Your task to perform on an android device: Open the calendar and show me this week's events? Image 0: 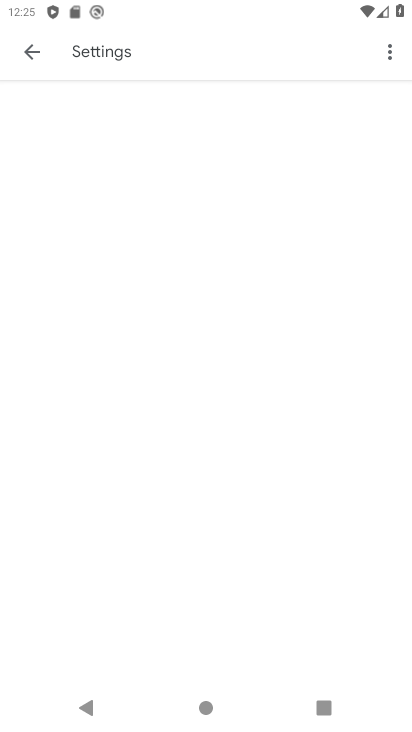
Step 0: press home button
Your task to perform on an android device: Open the calendar and show me this week's events? Image 1: 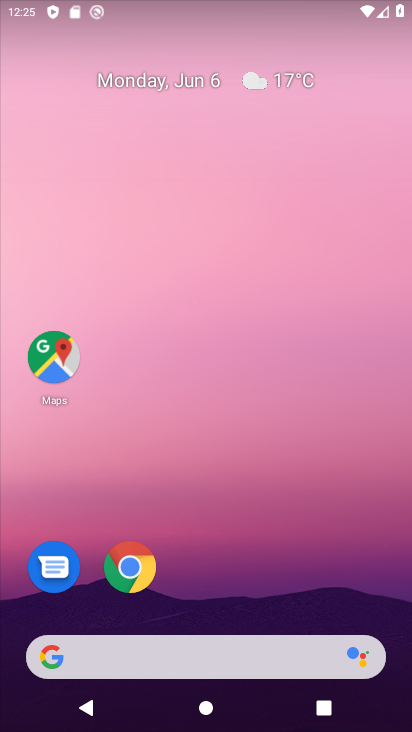
Step 1: drag from (248, 727) to (243, 12)
Your task to perform on an android device: Open the calendar and show me this week's events? Image 2: 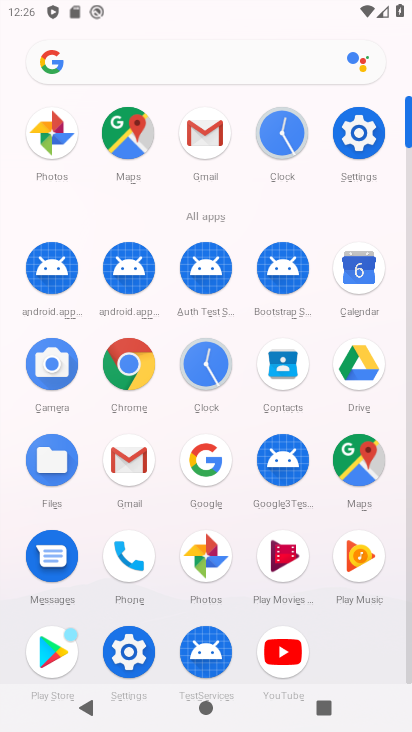
Step 2: click (362, 275)
Your task to perform on an android device: Open the calendar and show me this week's events? Image 3: 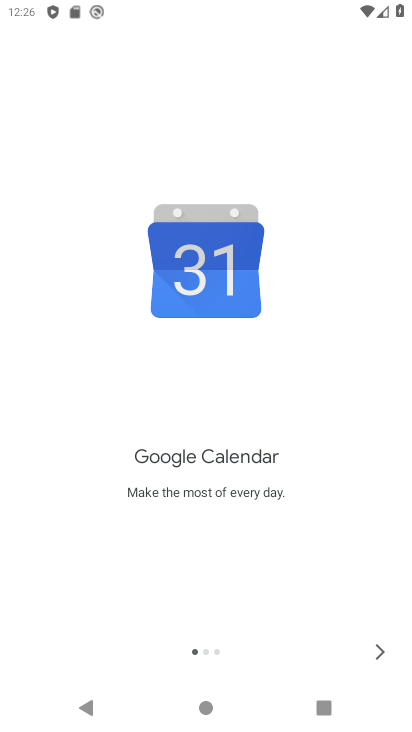
Step 3: click (380, 647)
Your task to perform on an android device: Open the calendar and show me this week's events? Image 4: 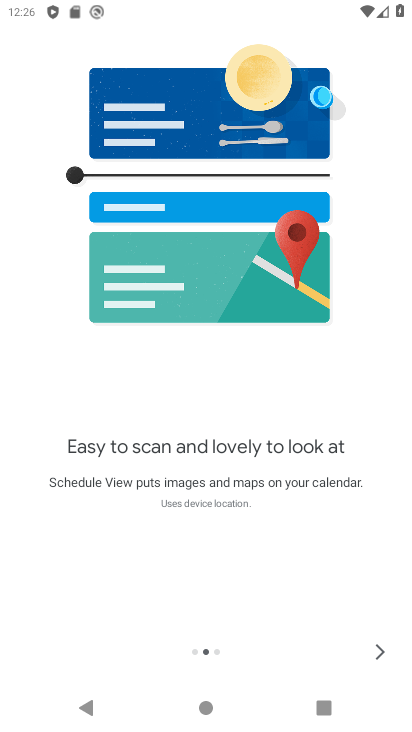
Step 4: click (380, 647)
Your task to perform on an android device: Open the calendar and show me this week's events? Image 5: 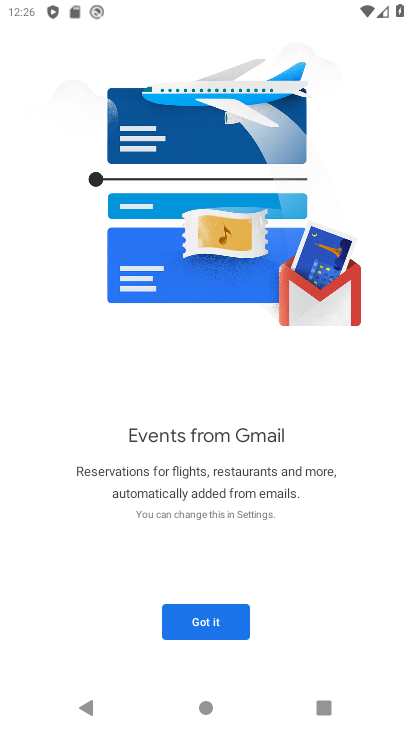
Step 5: click (227, 620)
Your task to perform on an android device: Open the calendar and show me this week's events? Image 6: 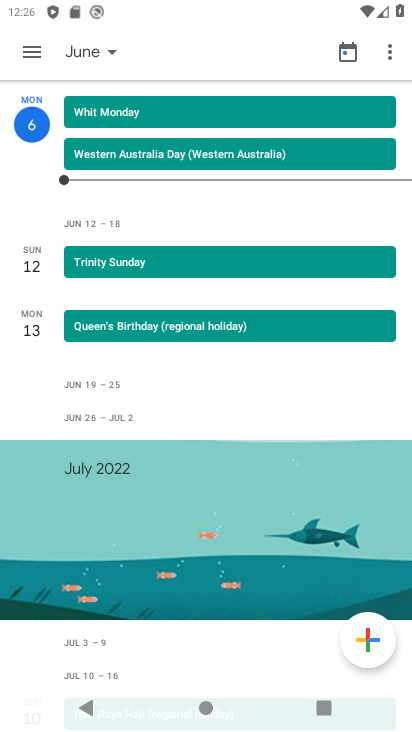
Step 6: click (28, 53)
Your task to perform on an android device: Open the calendar and show me this week's events? Image 7: 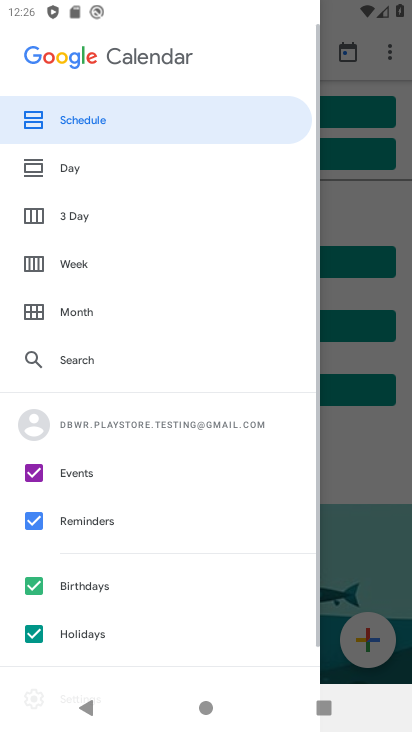
Step 7: click (35, 633)
Your task to perform on an android device: Open the calendar and show me this week's events? Image 8: 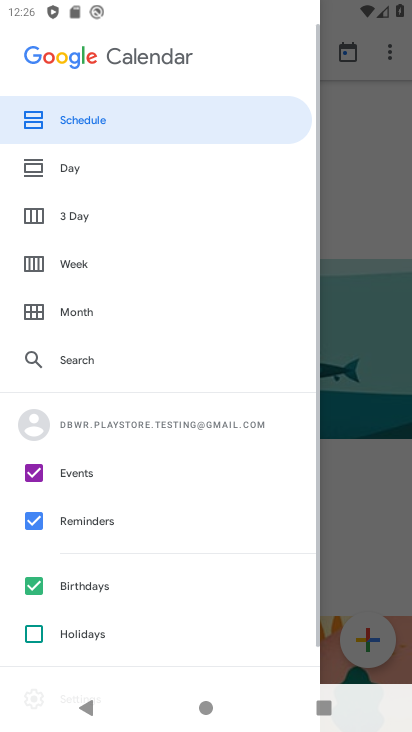
Step 8: click (27, 583)
Your task to perform on an android device: Open the calendar and show me this week's events? Image 9: 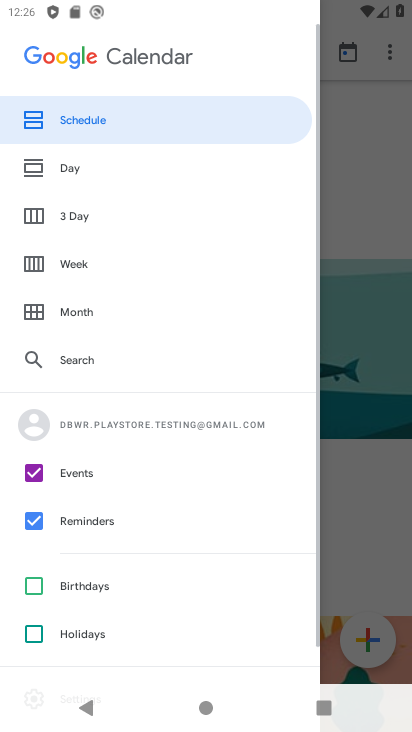
Step 9: click (30, 517)
Your task to perform on an android device: Open the calendar and show me this week's events? Image 10: 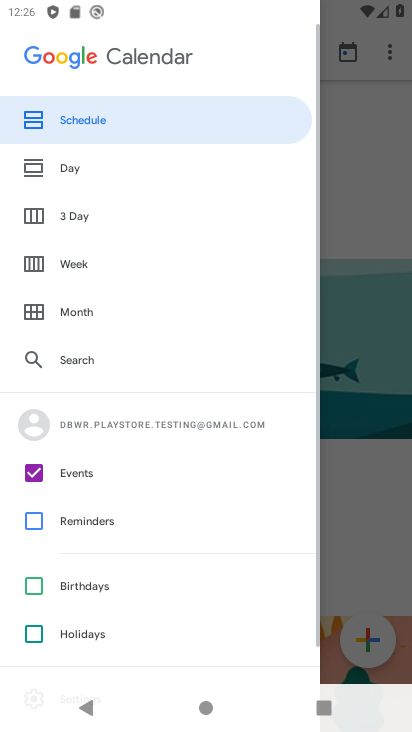
Step 10: click (69, 265)
Your task to perform on an android device: Open the calendar and show me this week's events? Image 11: 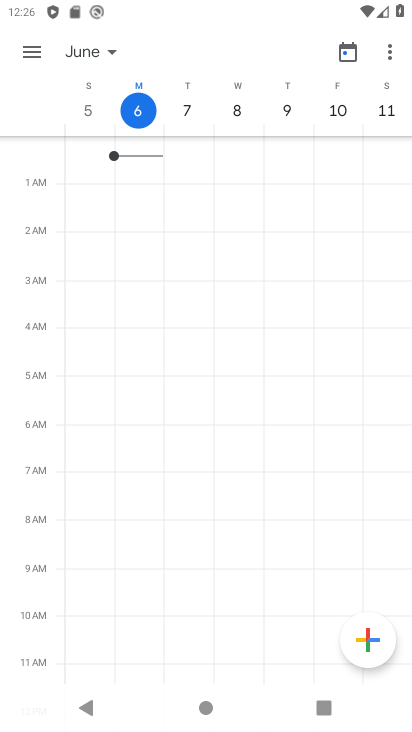
Step 11: task complete